Your task to perform on an android device: When is my next appointment? Image 0: 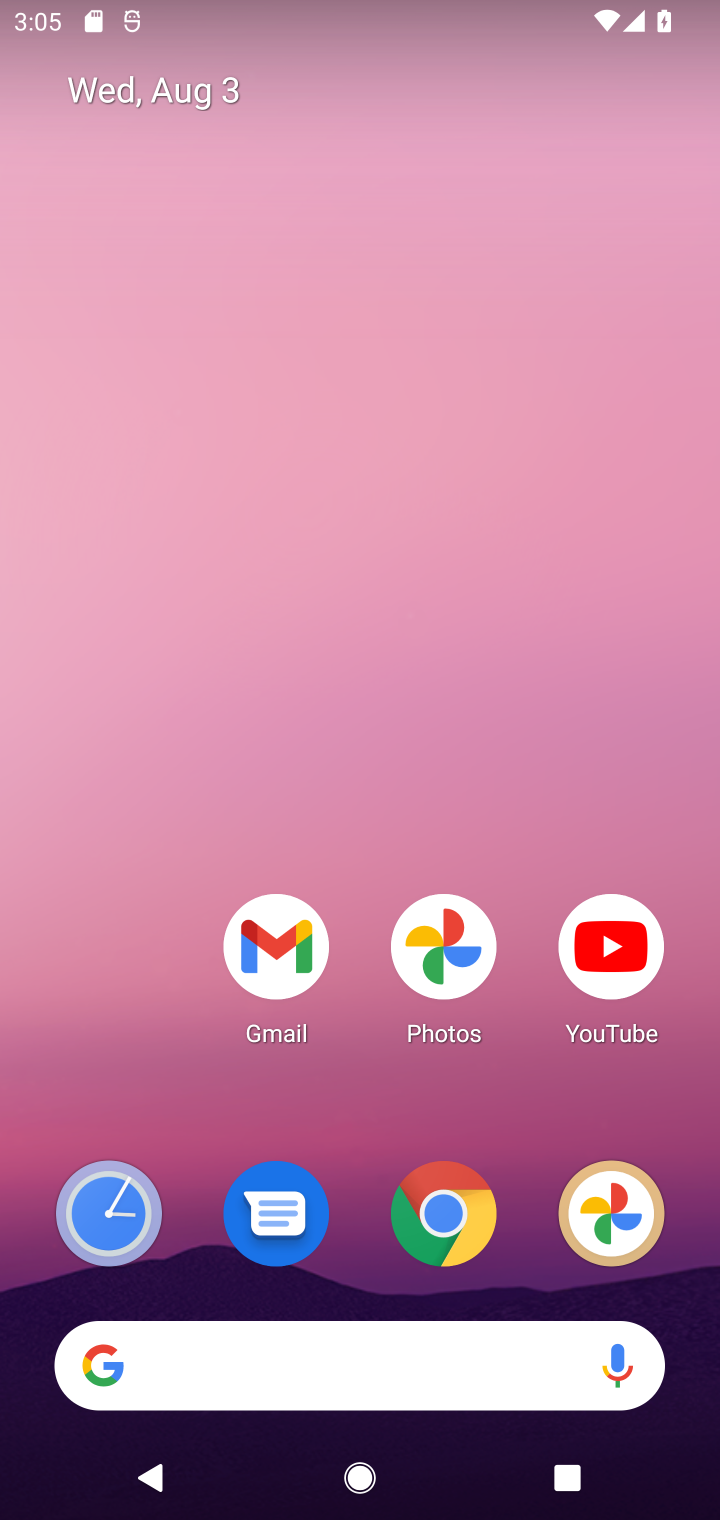
Step 0: drag from (341, 1098) to (324, 258)
Your task to perform on an android device: When is my next appointment? Image 1: 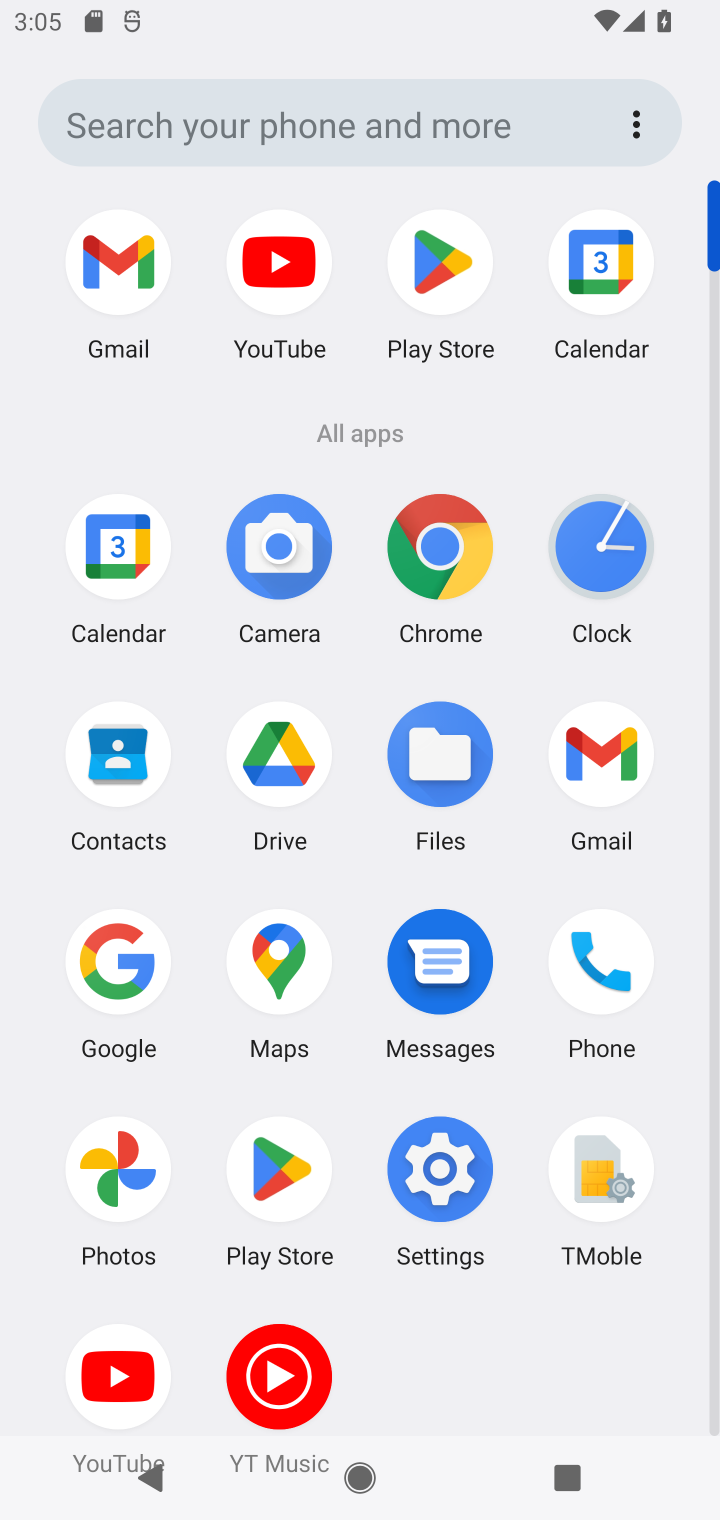
Step 1: click (603, 261)
Your task to perform on an android device: When is my next appointment? Image 2: 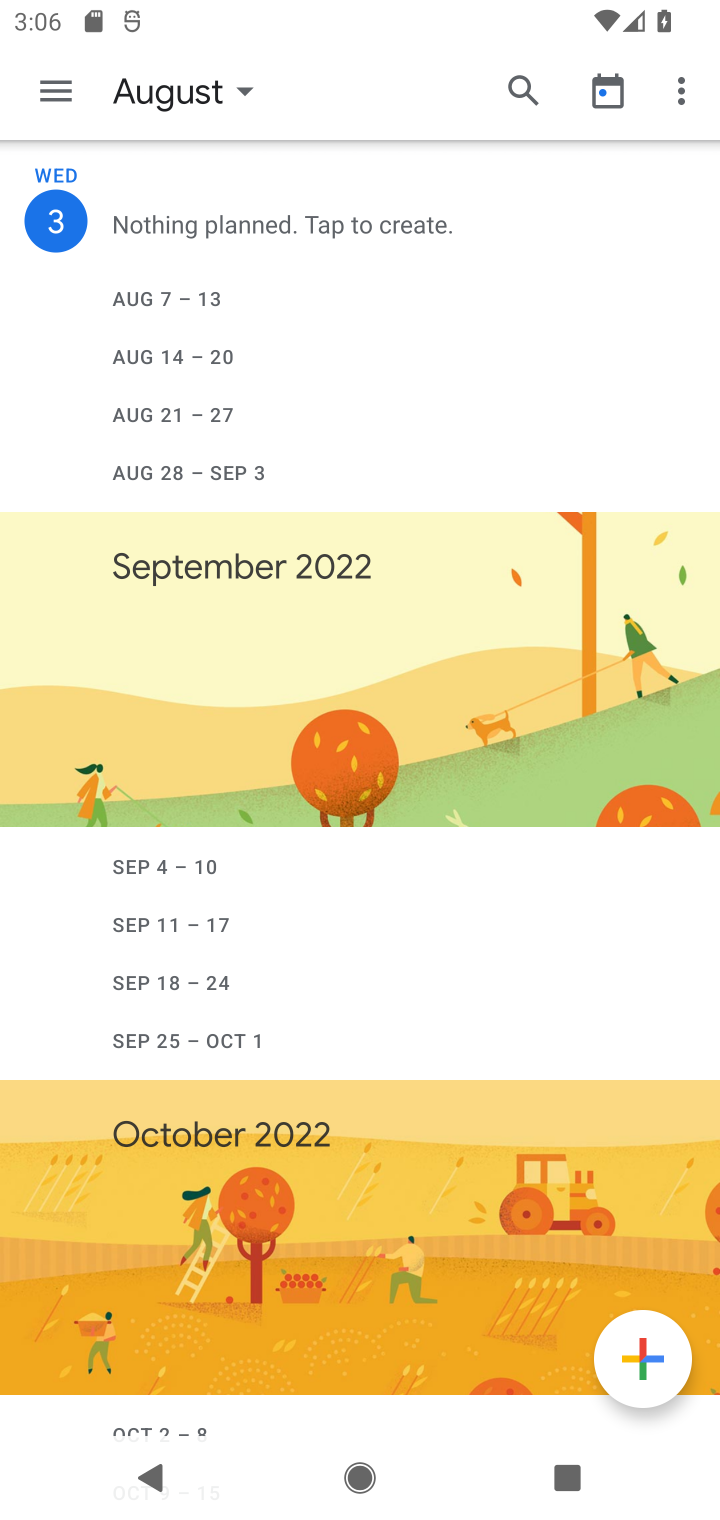
Step 2: click (34, 91)
Your task to perform on an android device: When is my next appointment? Image 3: 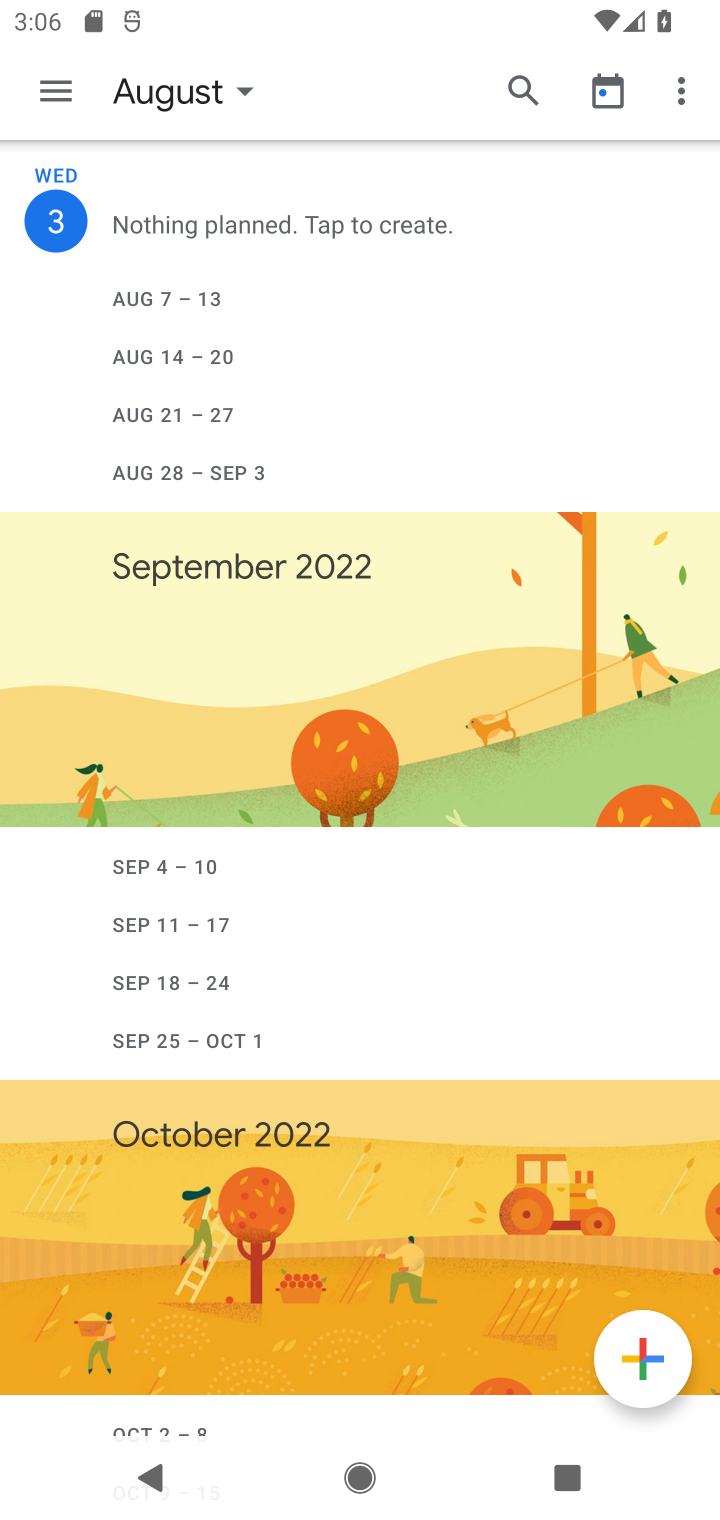
Step 3: click (50, 70)
Your task to perform on an android device: When is my next appointment? Image 4: 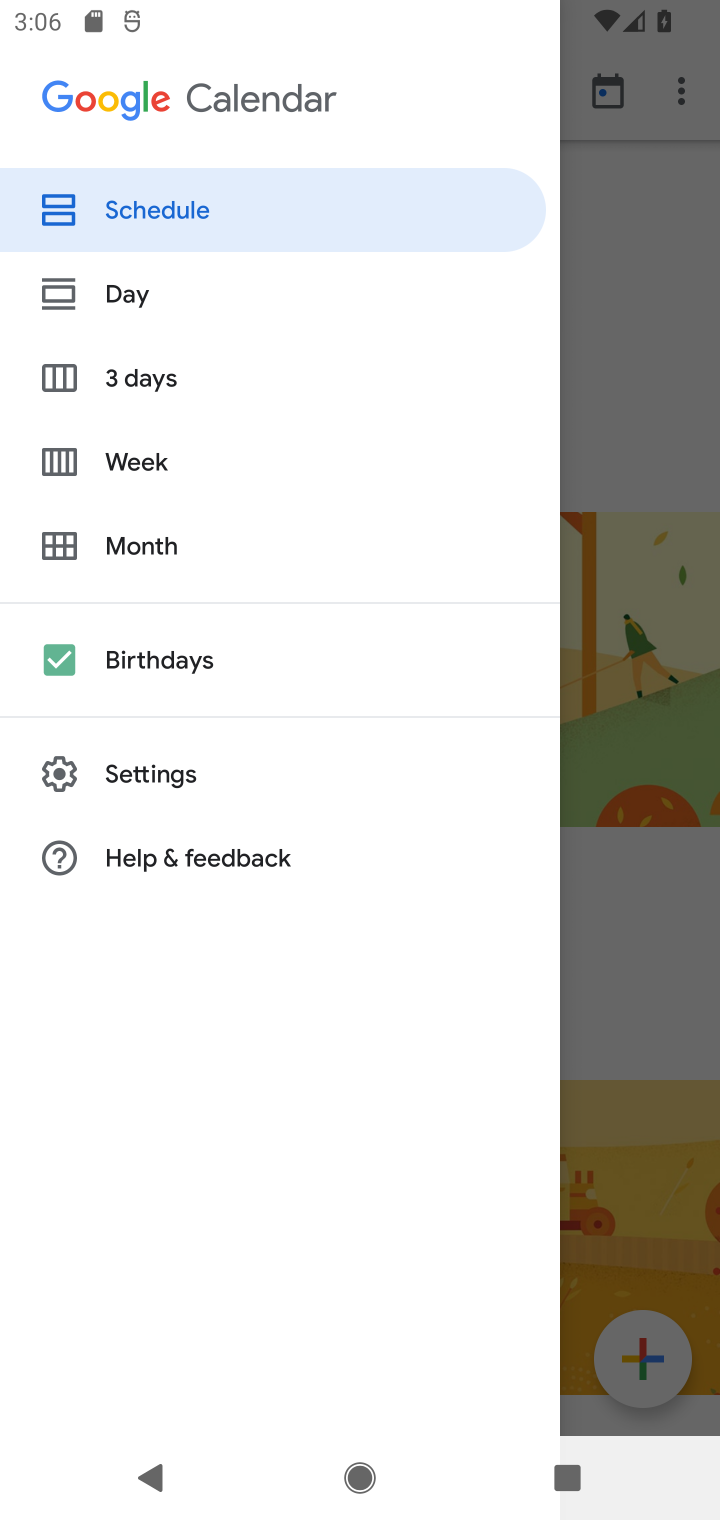
Step 4: click (153, 546)
Your task to perform on an android device: When is my next appointment? Image 5: 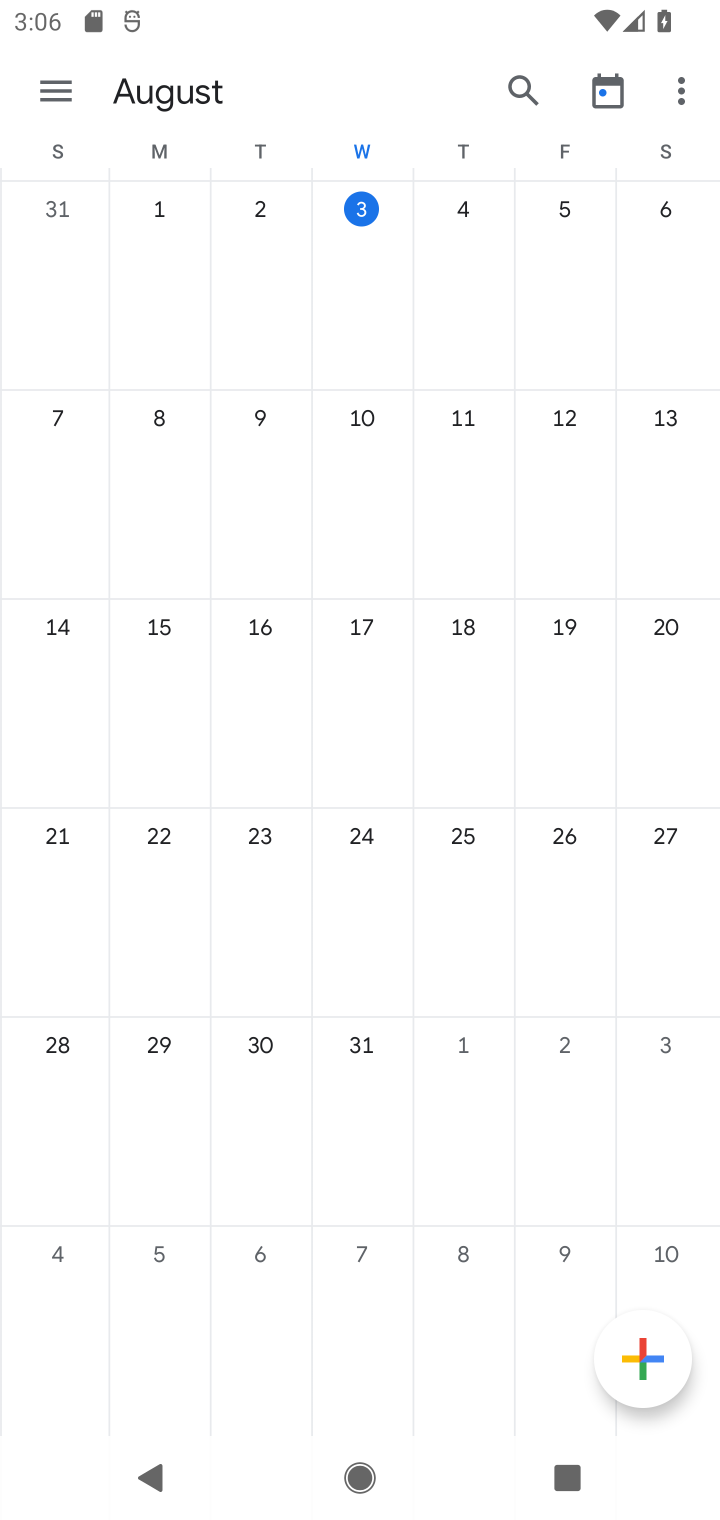
Step 5: click (441, 234)
Your task to perform on an android device: When is my next appointment? Image 6: 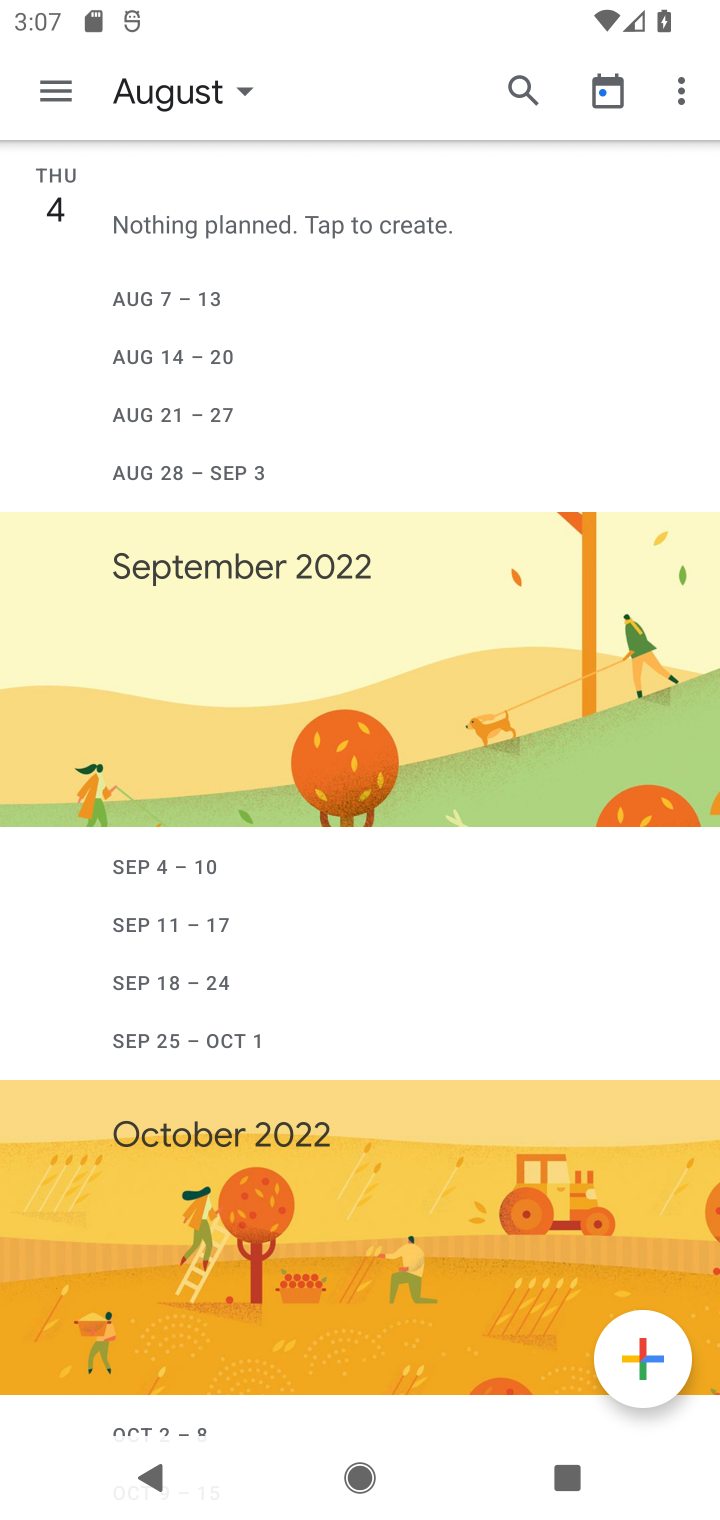
Step 6: task complete